Your task to perform on an android device: change keyboard looks Image 0: 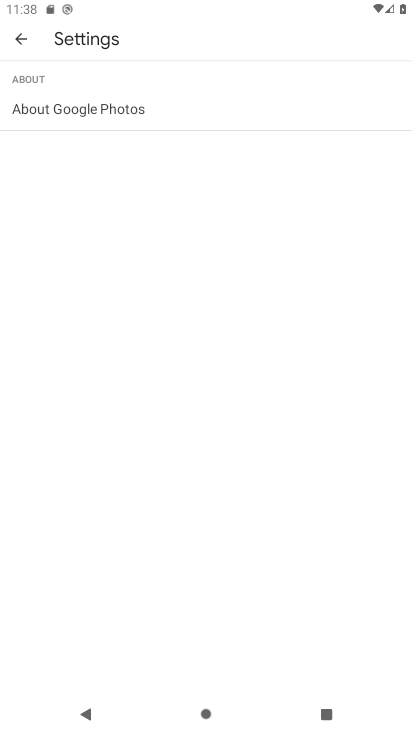
Step 0: press home button
Your task to perform on an android device: change keyboard looks Image 1: 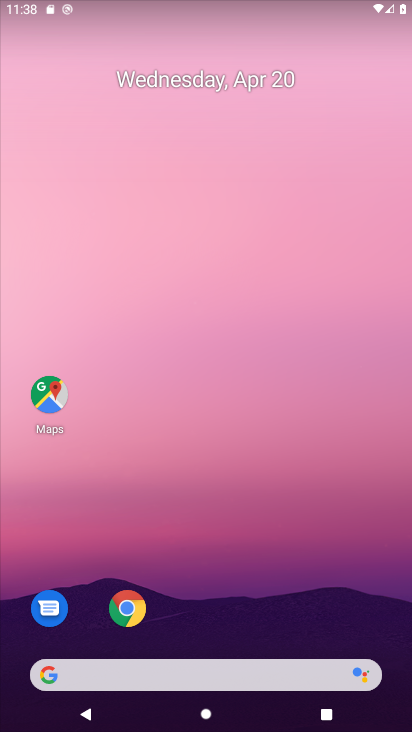
Step 1: drag from (214, 543) to (232, 125)
Your task to perform on an android device: change keyboard looks Image 2: 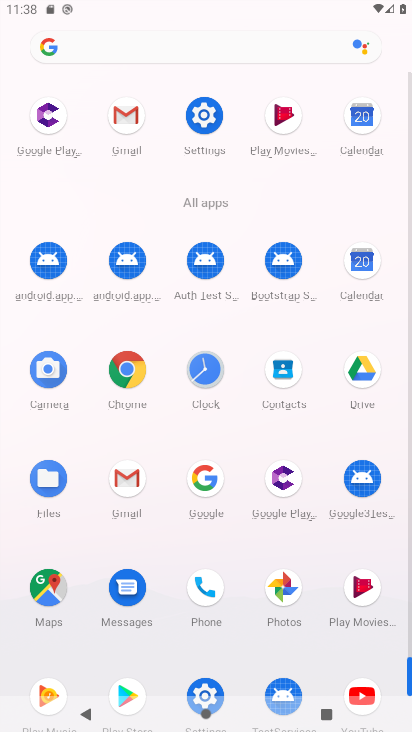
Step 2: click (211, 120)
Your task to perform on an android device: change keyboard looks Image 3: 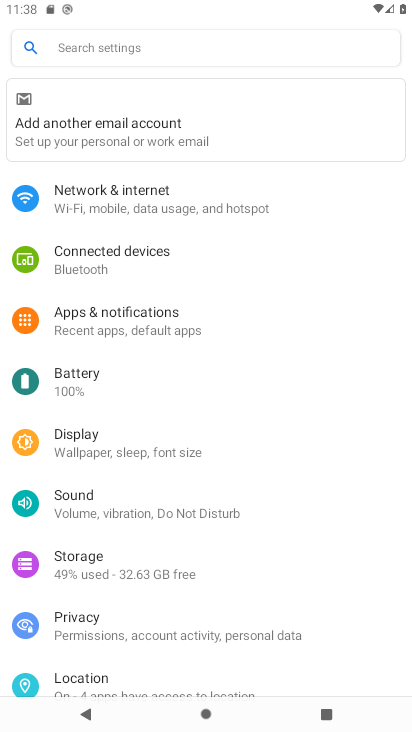
Step 3: drag from (147, 510) to (199, 160)
Your task to perform on an android device: change keyboard looks Image 4: 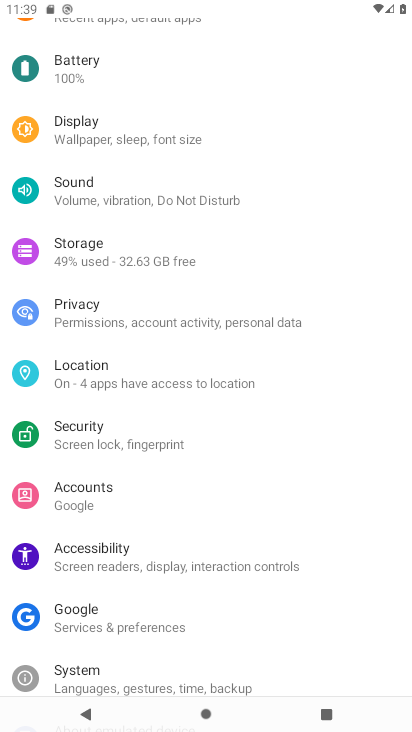
Step 4: click (131, 674)
Your task to perform on an android device: change keyboard looks Image 5: 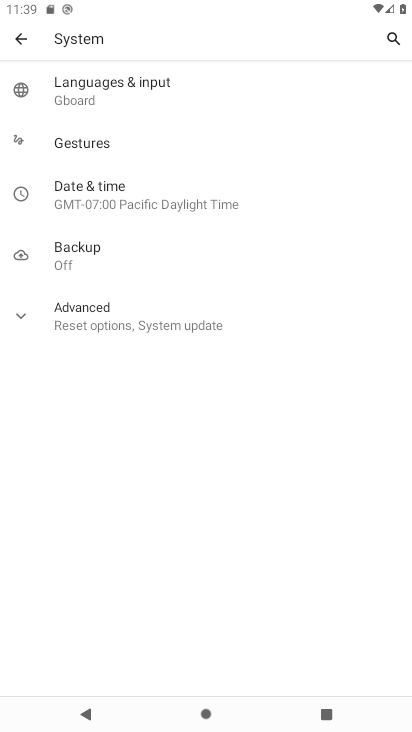
Step 5: click (157, 94)
Your task to perform on an android device: change keyboard looks Image 6: 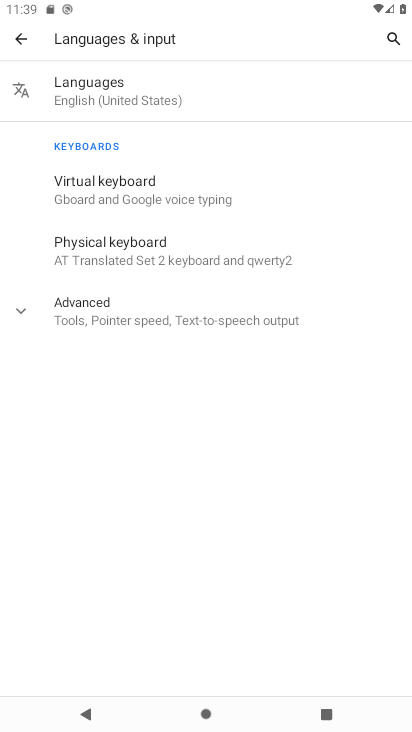
Step 6: click (133, 203)
Your task to perform on an android device: change keyboard looks Image 7: 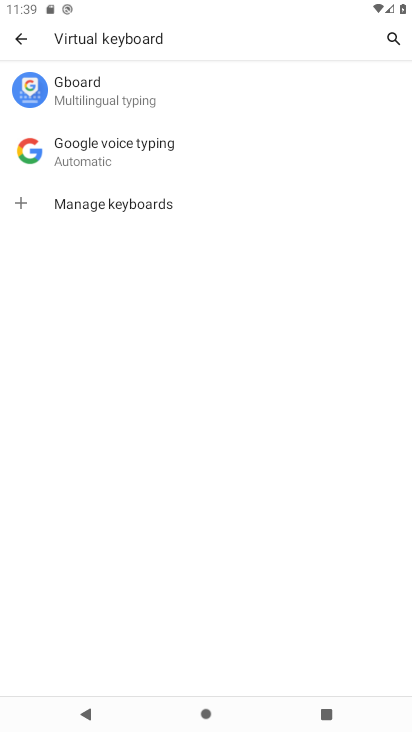
Step 7: click (144, 102)
Your task to perform on an android device: change keyboard looks Image 8: 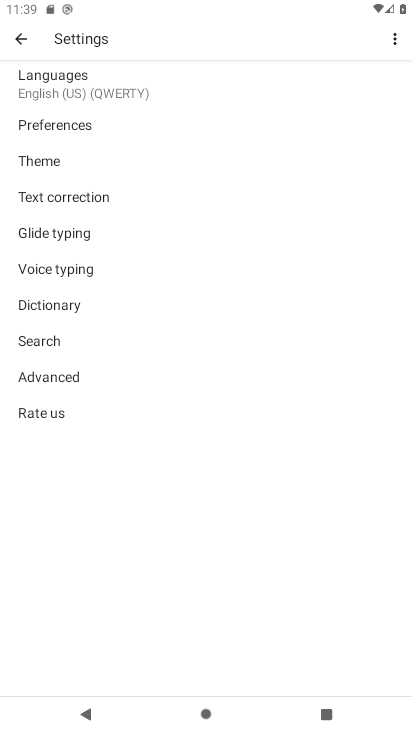
Step 8: click (80, 160)
Your task to perform on an android device: change keyboard looks Image 9: 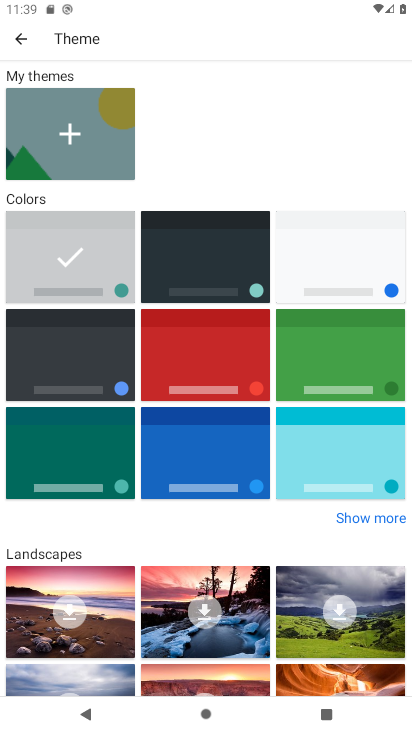
Step 9: click (116, 381)
Your task to perform on an android device: change keyboard looks Image 10: 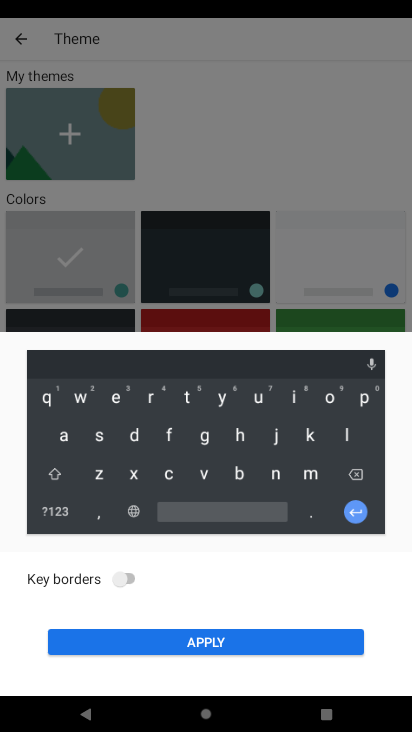
Step 10: click (191, 632)
Your task to perform on an android device: change keyboard looks Image 11: 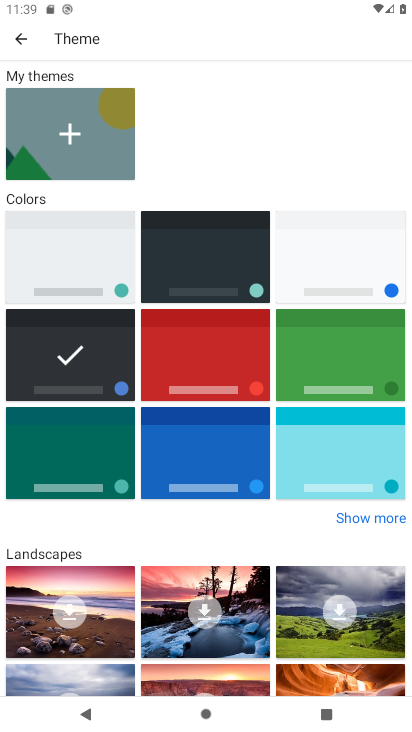
Step 11: task complete